Your task to perform on an android device: Open internet settings Image 0: 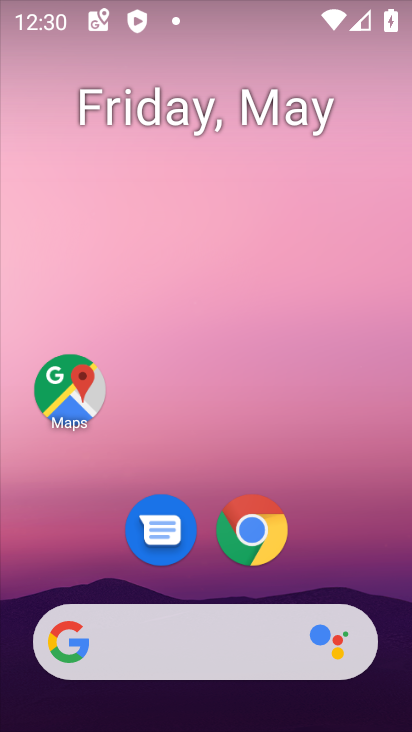
Step 0: drag from (344, 533) to (252, 173)
Your task to perform on an android device: Open internet settings Image 1: 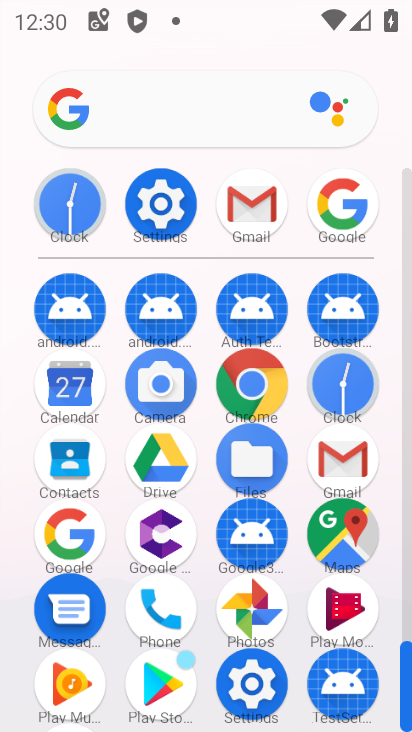
Step 1: click (158, 202)
Your task to perform on an android device: Open internet settings Image 2: 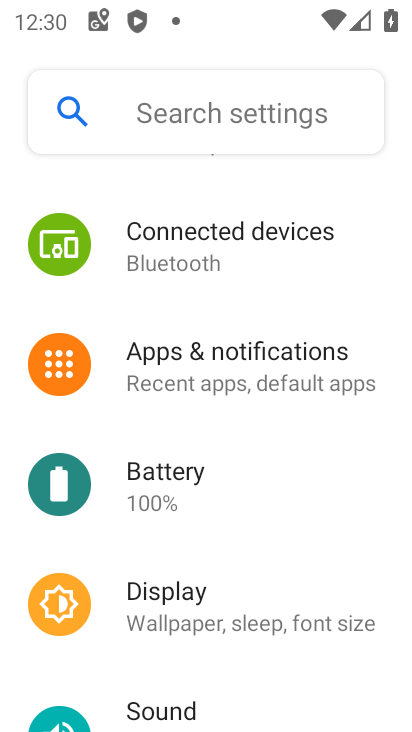
Step 2: drag from (241, 312) to (254, 388)
Your task to perform on an android device: Open internet settings Image 3: 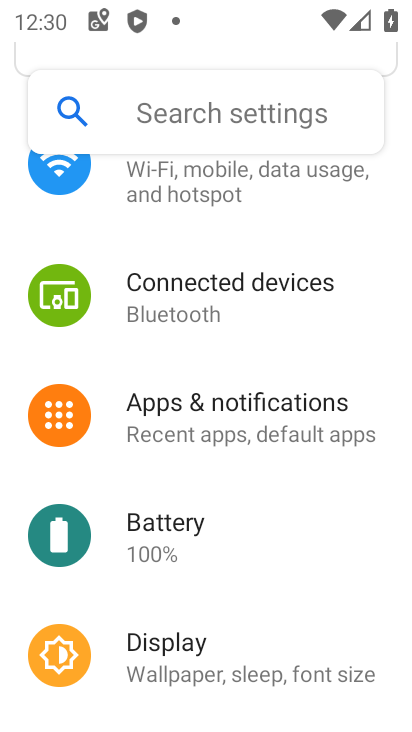
Step 3: drag from (242, 224) to (234, 377)
Your task to perform on an android device: Open internet settings Image 4: 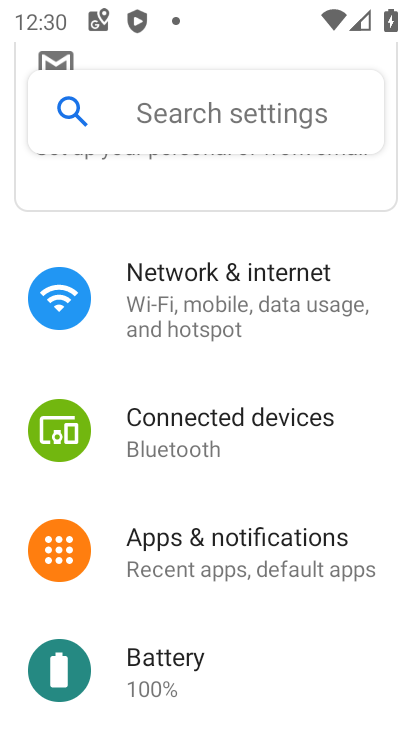
Step 4: click (215, 280)
Your task to perform on an android device: Open internet settings Image 5: 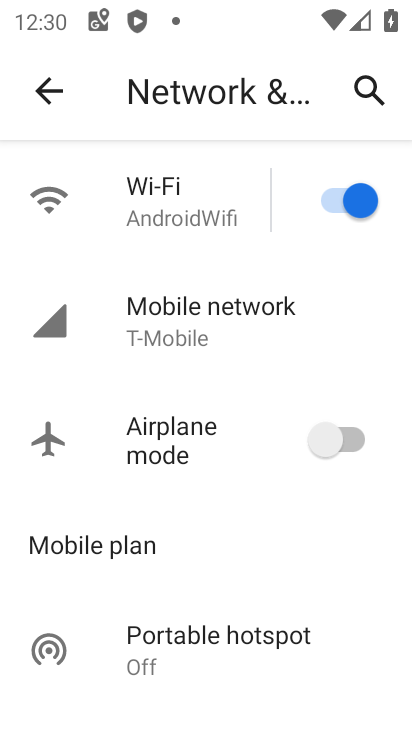
Step 5: click (154, 212)
Your task to perform on an android device: Open internet settings Image 6: 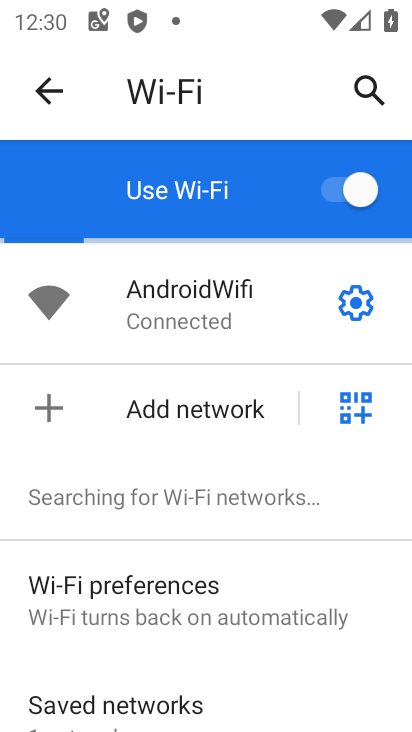
Step 6: click (353, 296)
Your task to perform on an android device: Open internet settings Image 7: 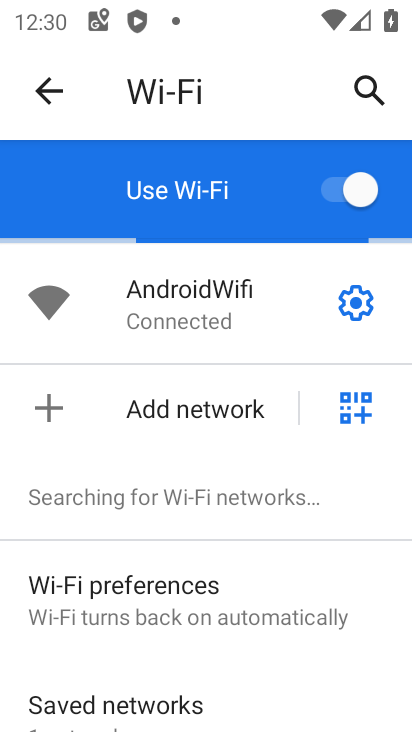
Step 7: click (356, 302)
Your task to perform on an android device: Open internet settings Image 8: 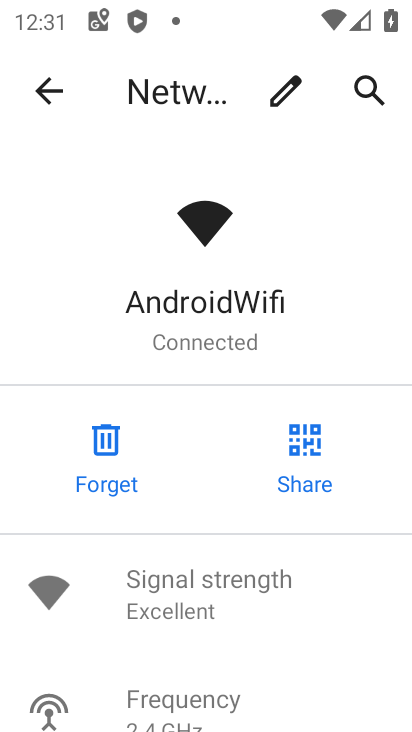
Step 8: task complete